Your task to perform on an android device: turn on showing notifications on the lock screen Image 0: 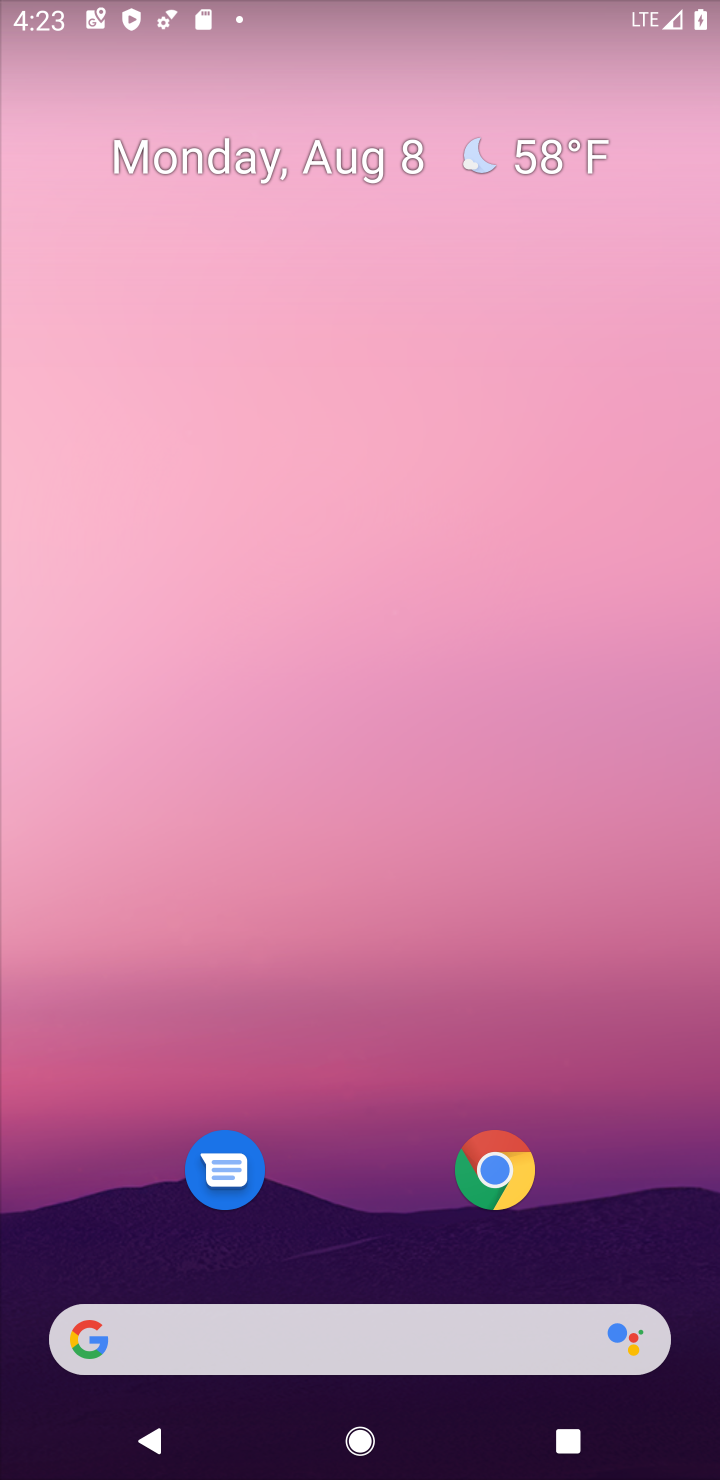
Step 0: drag from (330, 1021) to (330, 347)
Your task to perform on an android device: turn on showing notifications on the lock screen Image 1: 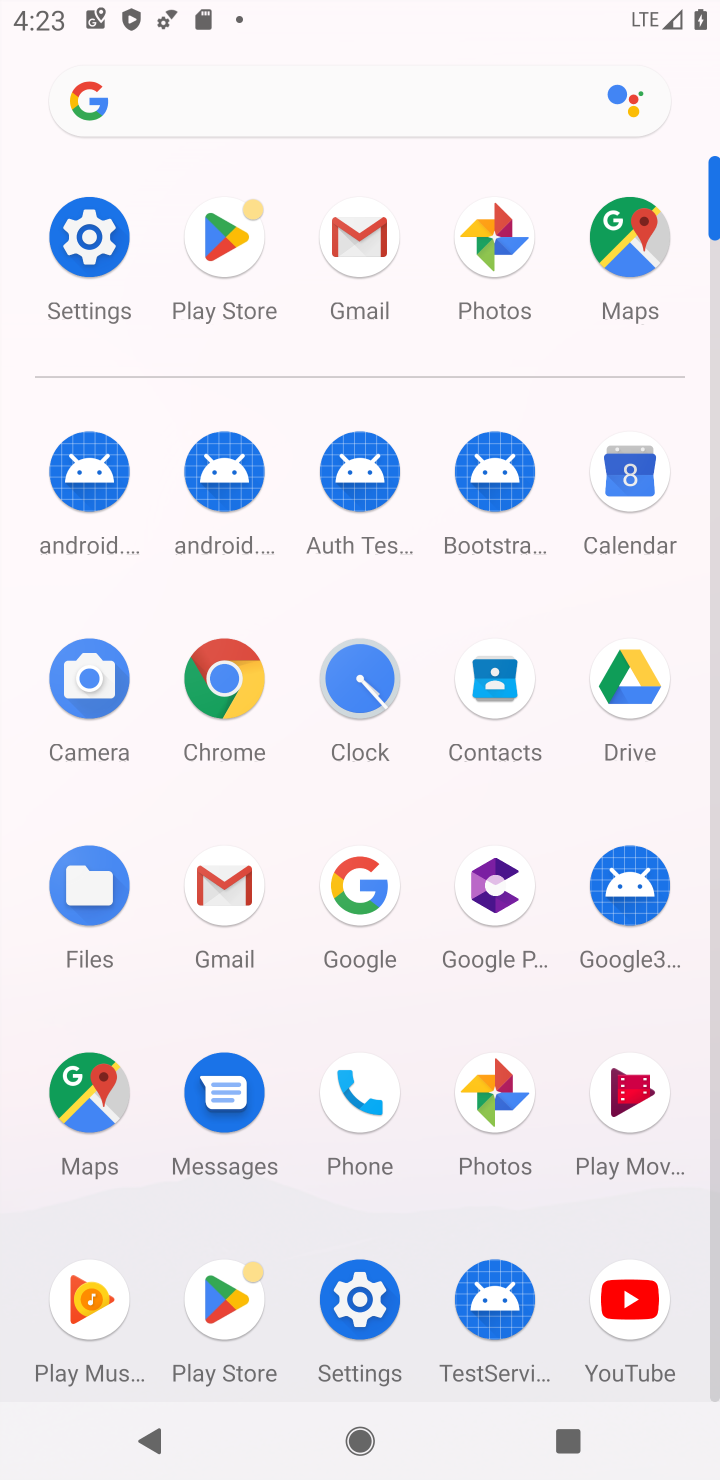
Step 1: click (100, 259)
Your task to perform on an android device: turn on showing notifications on the lock screen Image 2: 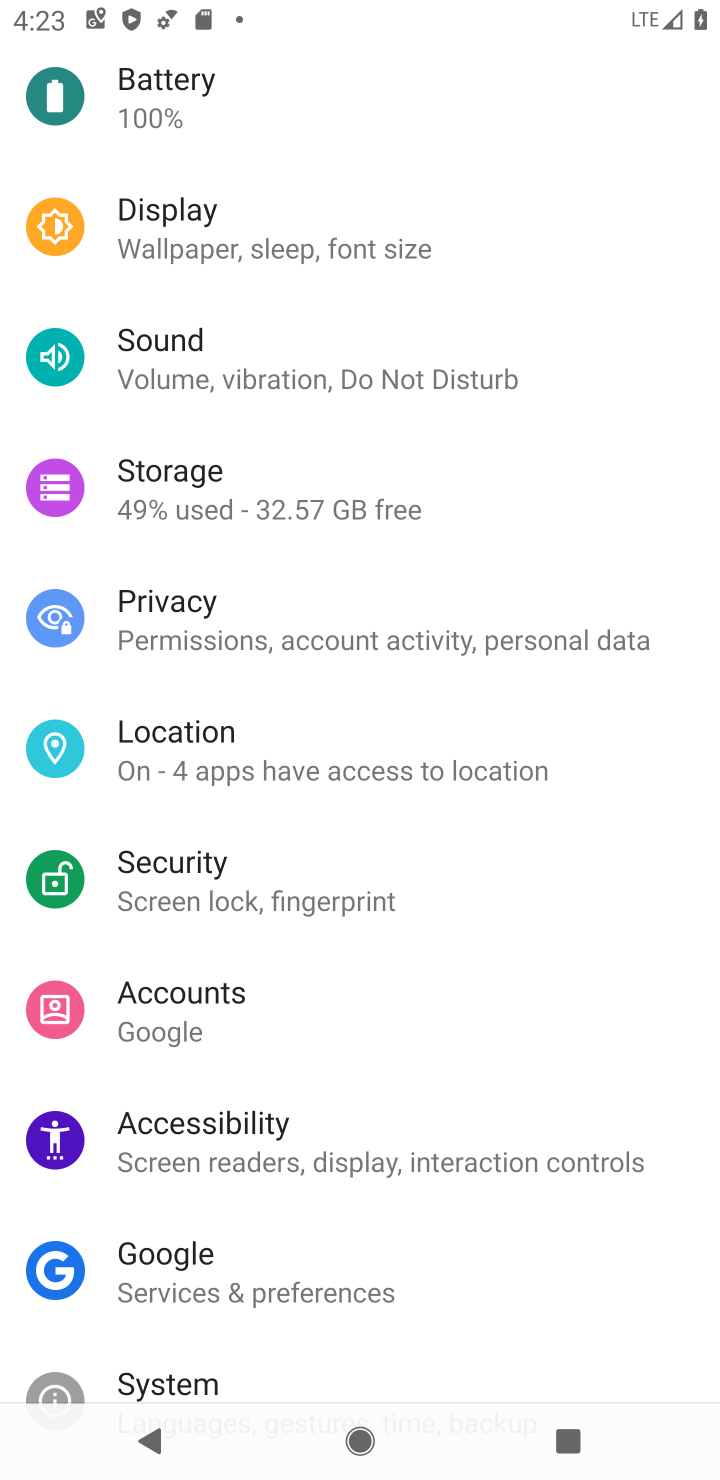
Step 2: drag from (337, 423) to (340, 978)
Your task to perform on an android device: turn on showing notifications on the lock screen Image 3: 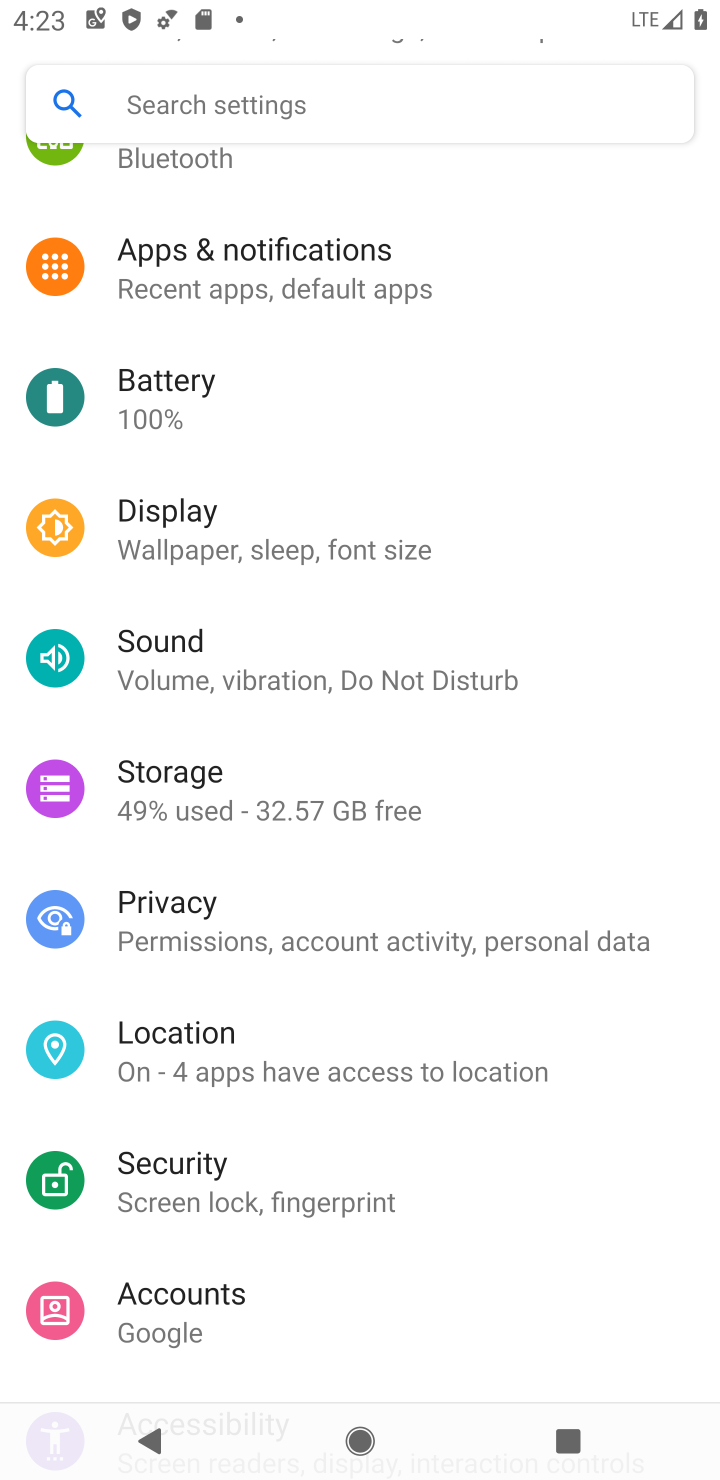
Step 3: click (332, 284)
Your task to perform on an android device: turn on showing notifications on the lock screen Image 4: 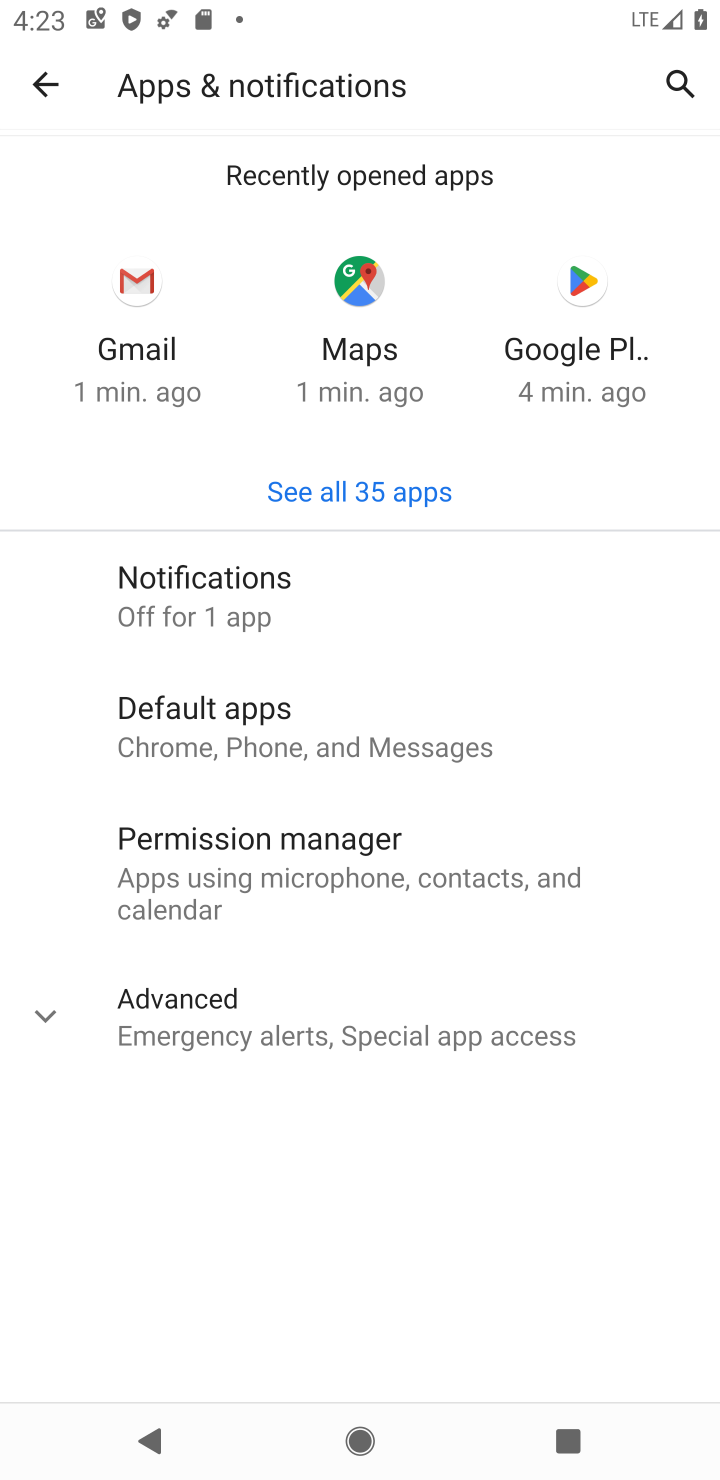
Step 4: click (187, 577)
Your task to perform on an android device: turn on showing notifications on the lock screen Image 5: 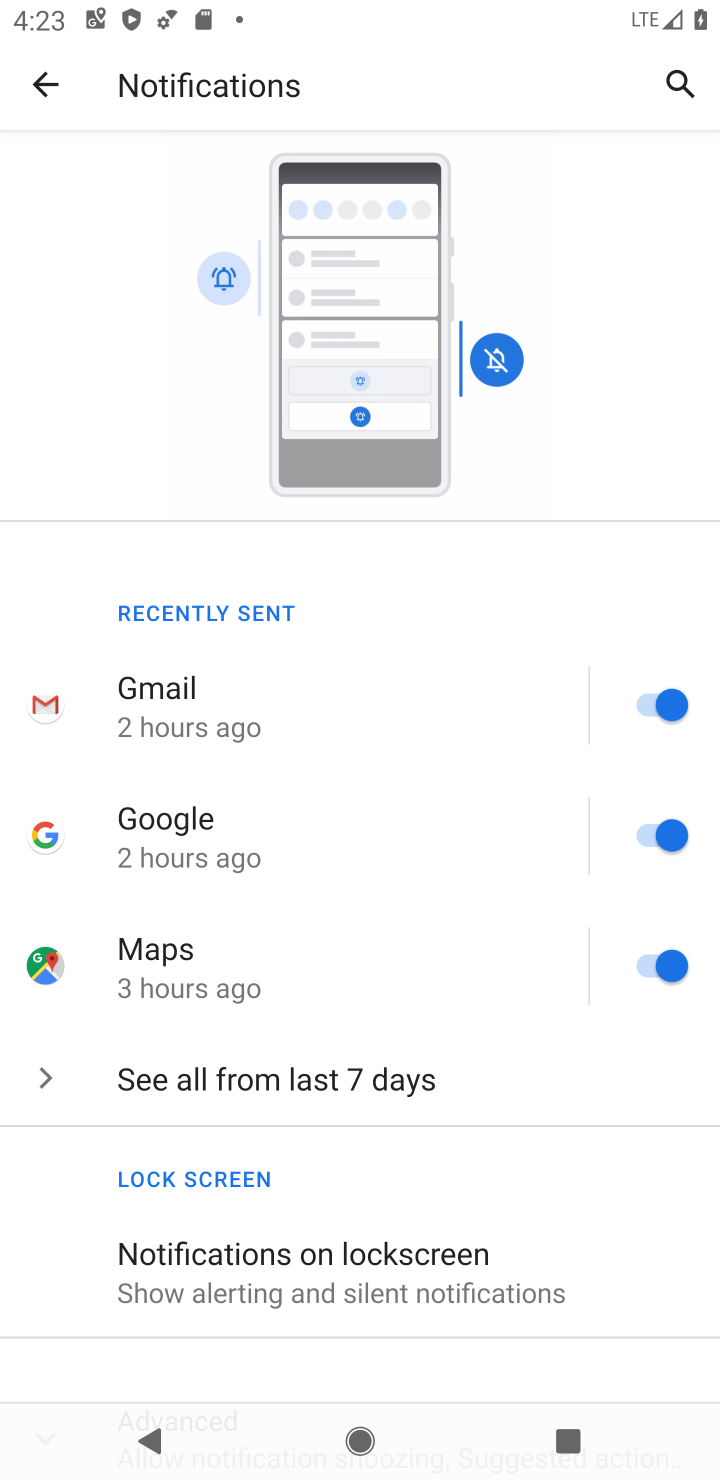
Step 5: click (367, 1293)
Your task to perform on an android device: turn on showing notifications on the lock screen Image 6: 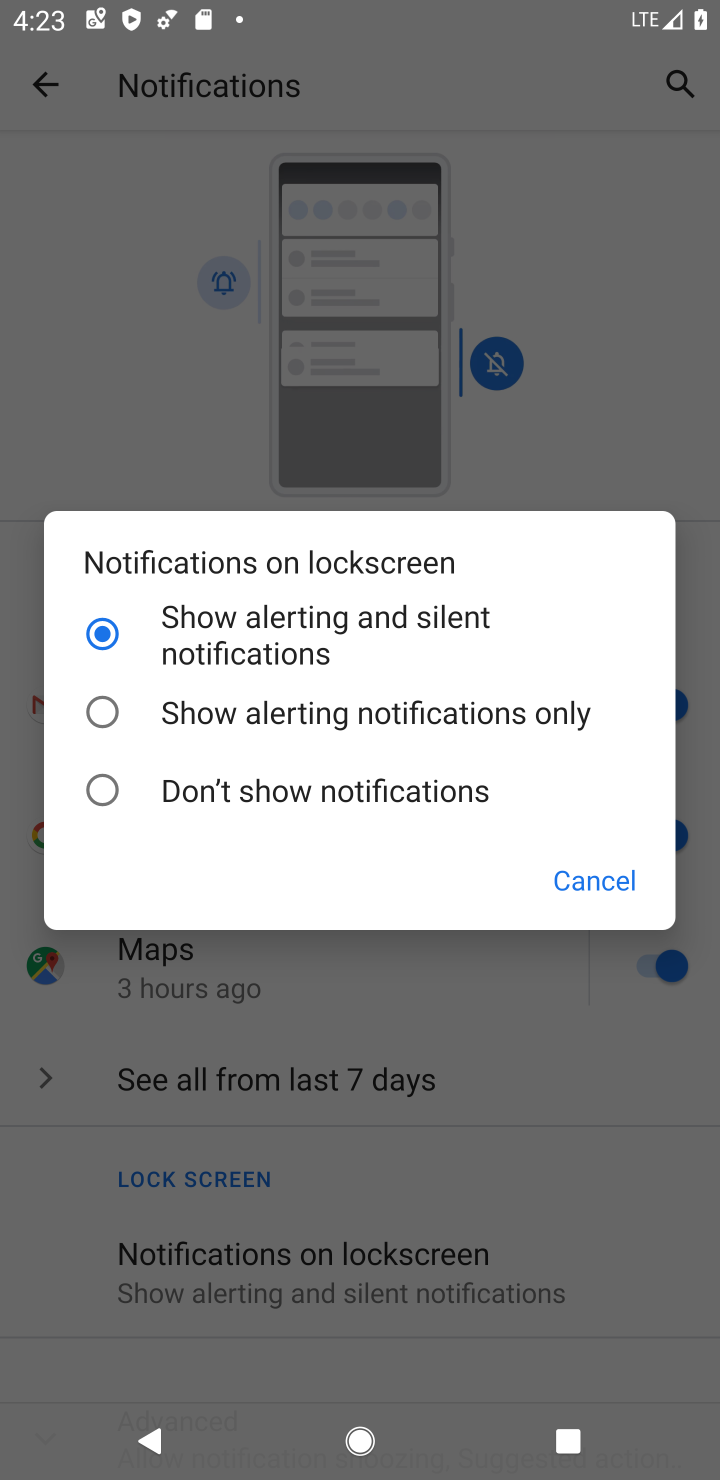
Step 6: task complete